Your task to perform on an android device: Open eBay Image 0: 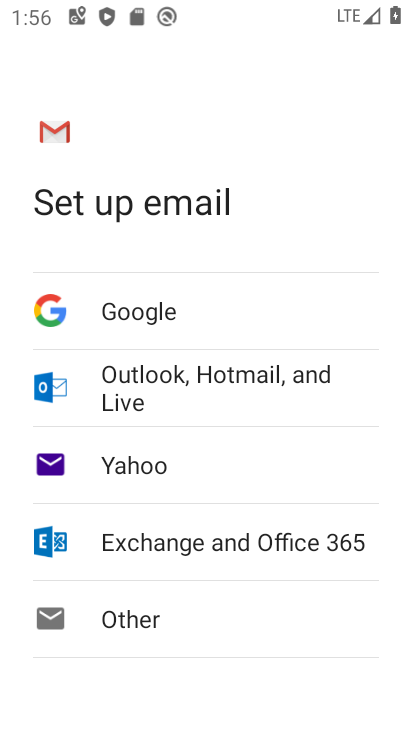
Step 0: press home button
Your task to perform on an android device: Open eBay Image 1: 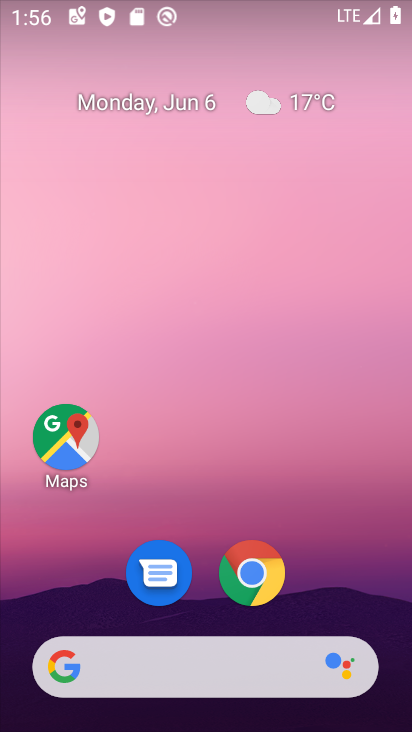
Step 1: drag from (373, 587) to (365, 151)
Your task to perform on an android device: Open eBay Image 2: 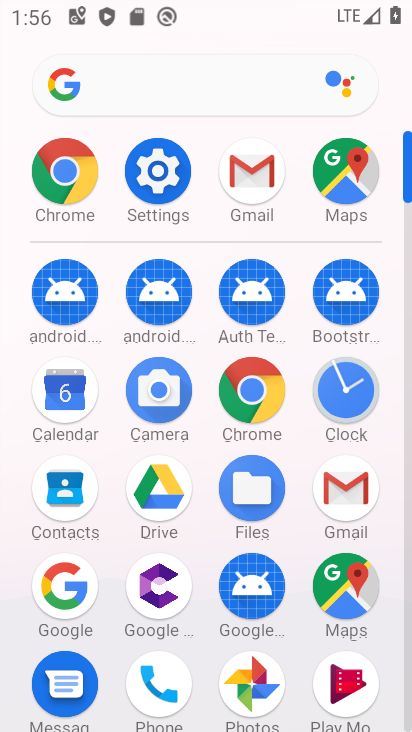
Step 2: click (271, 398)
Your task to perform on an android device: Open eBay Image 3: 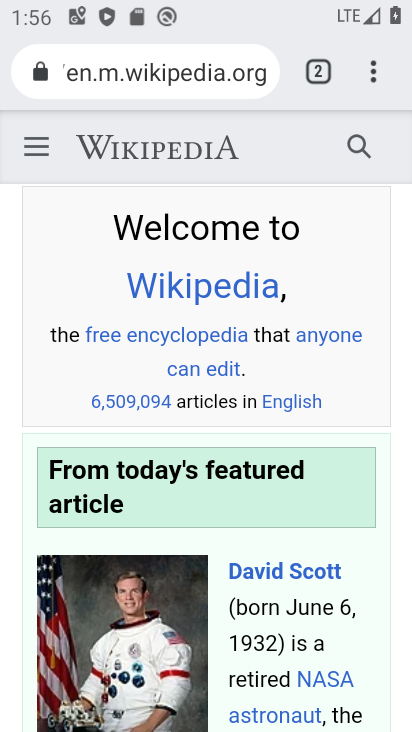
Step 3: press back button
Your task to perform on an android device: Open eBay Image 4: 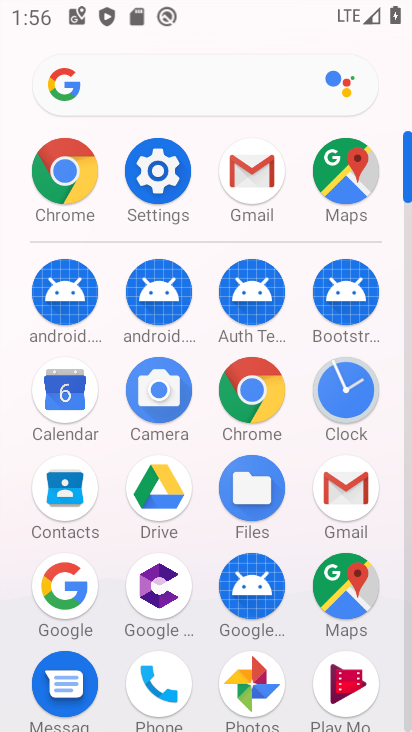
Step 4: click (247, 403)
Your task to perform on an android device: Open eBay Image 5: 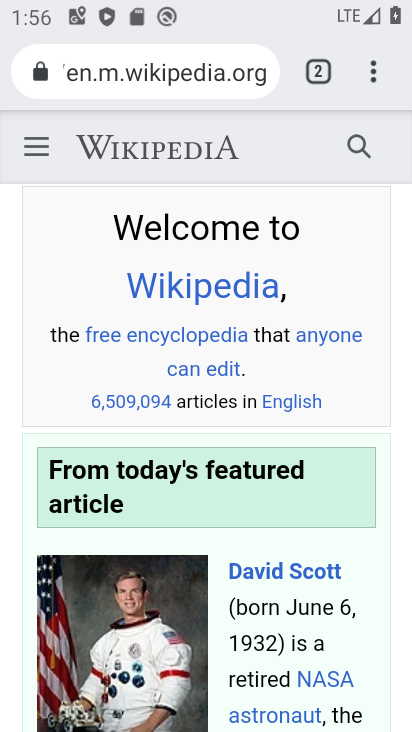
Step 5: type "ebay"
Your task to perform on an android device: Open eBay Image 6: 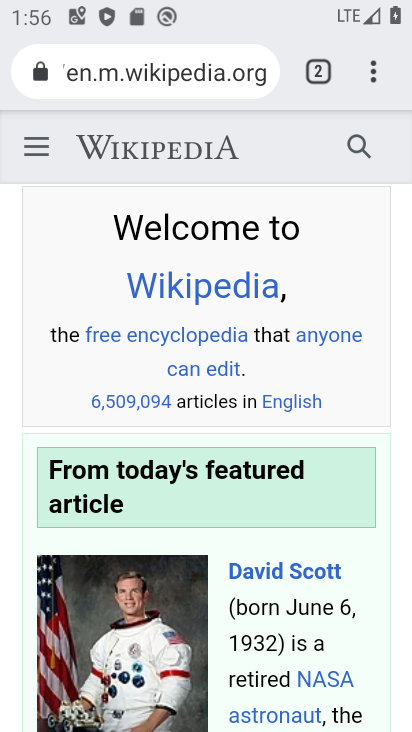
Step 6: click (128, 74)
Your task to perform on an android device: Open eBay Image 7: 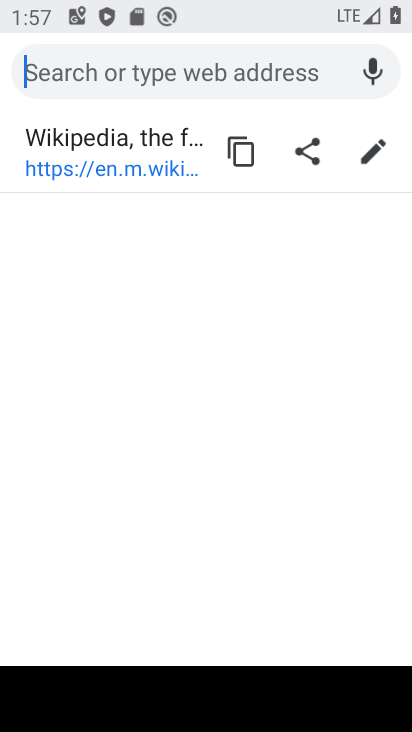
Step 7: type "eaby"
Your task to perform on an android device: Open eBay Image 8: 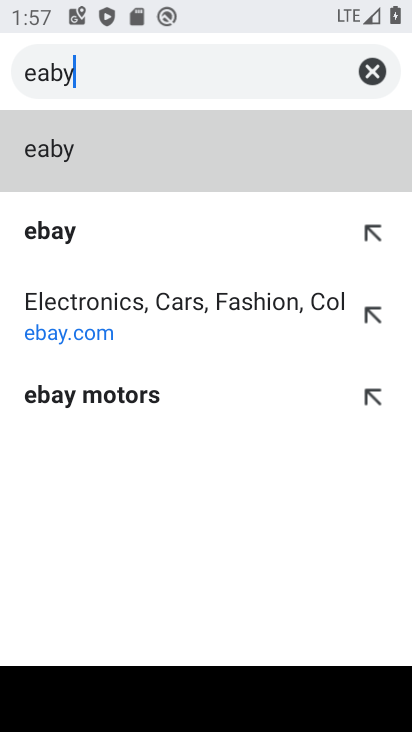
Step 8: click (129, 321)
Your task to perform on an android device: Open eBay Image 9: 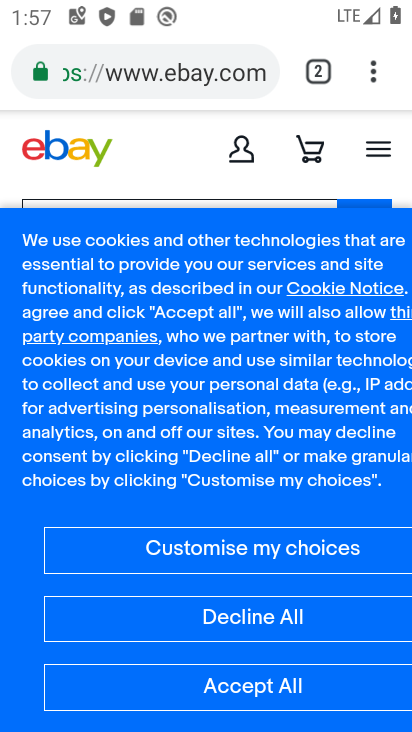
Step 9: task complete